Your task to perform on an android device: Go to Android settings Image 0: 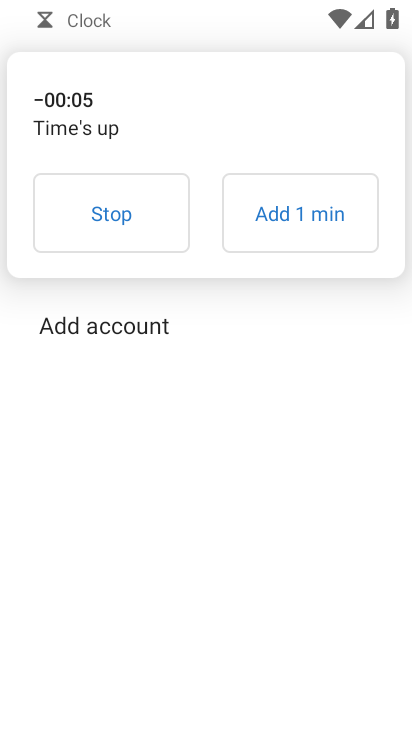
Step 0: click (152, 238)
Your task to perform on an android device: Go to Android settings Image 1: 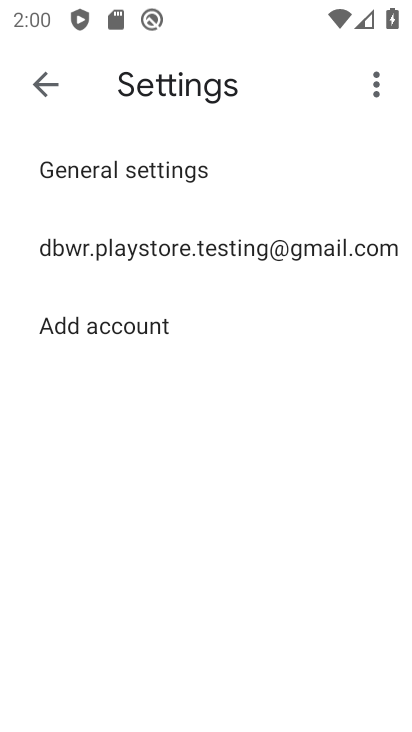
Step 1: press home button
Your task to perform on an android device: Go to Android settings Image 2: 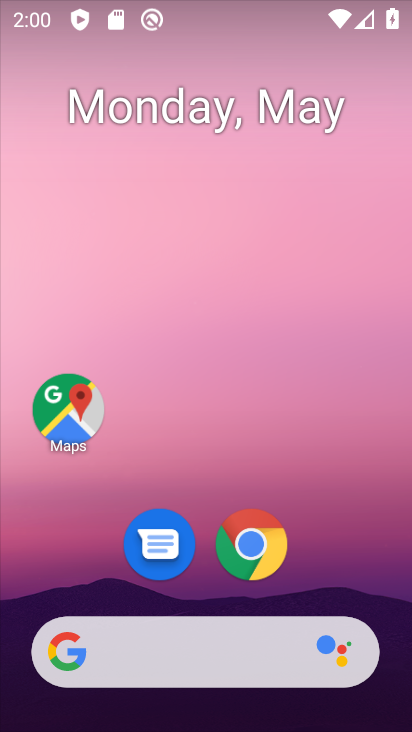
Step 2: drag from (198, 588) to (193, 172)
Your task to perform on an android device: Go to Android settings Image 3: 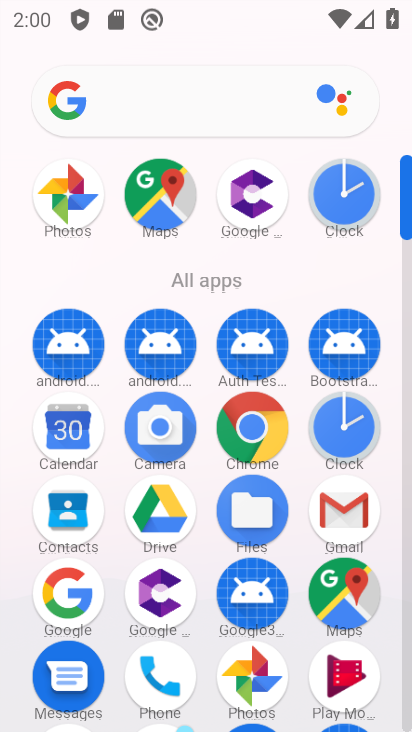
Step 3: drag from (196, 517) to (223, 248)
Your task to perform on an android device: Go to Android settings Image 4: 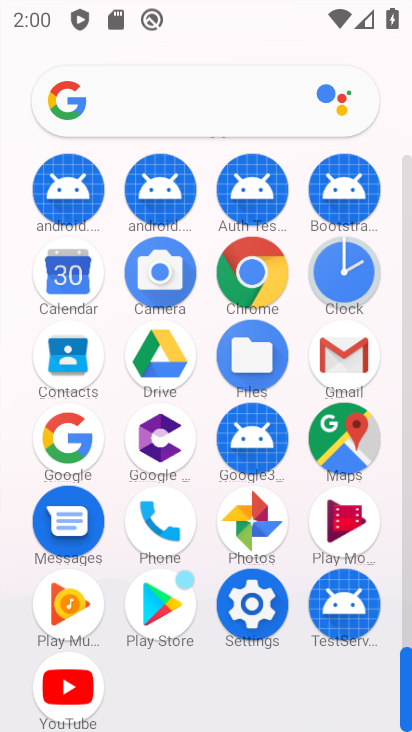
Step 4: click (242, 601)
Your task to perform on an android device: Go to Android settings Image 5: 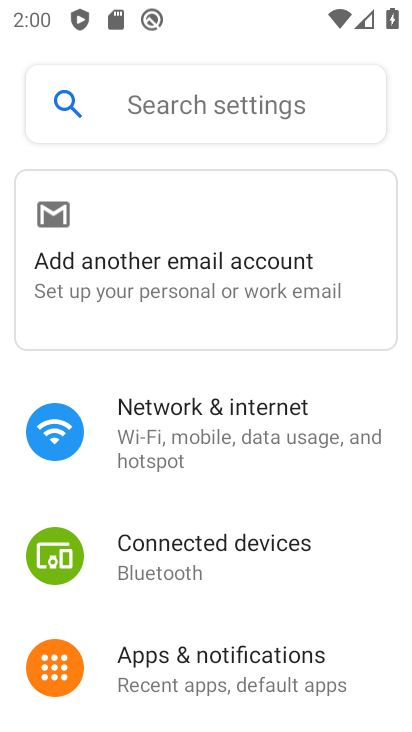
Step 5: task complete